Your task to perform on an android device: Go to ESPN.com Image 0: 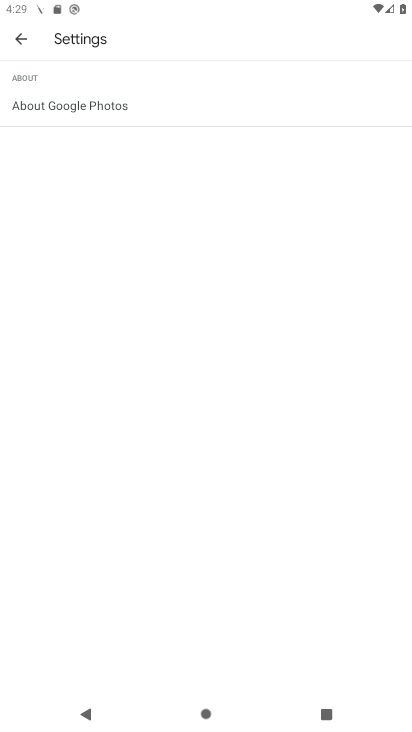
Step 0: press home button
Your task to perform on an android device: Go to ESPN.com Image 1: 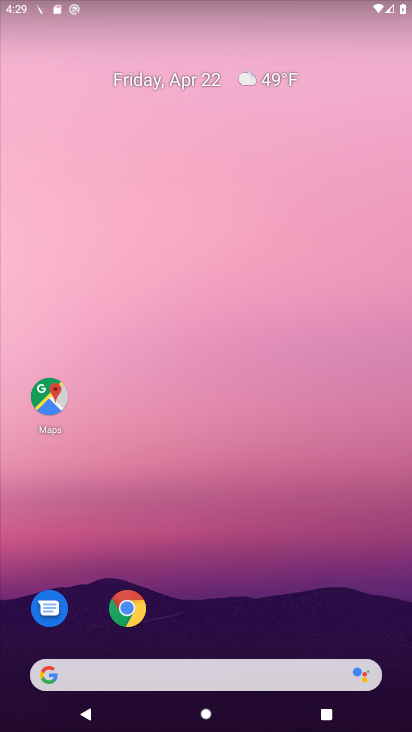
Step 1: drag from (226, 652) to (327, 135)
Your task to perform on an android device: Go to ESPN.com Image 2: 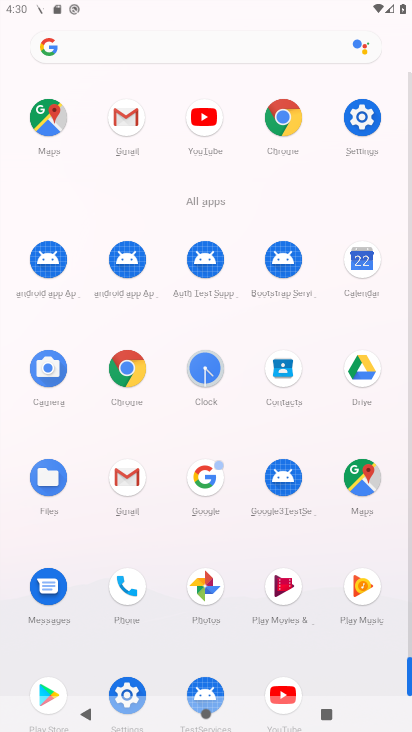
Step 2: click (283, 144)
Your task to perform on an android device: Go to ESPN.com Image 3: 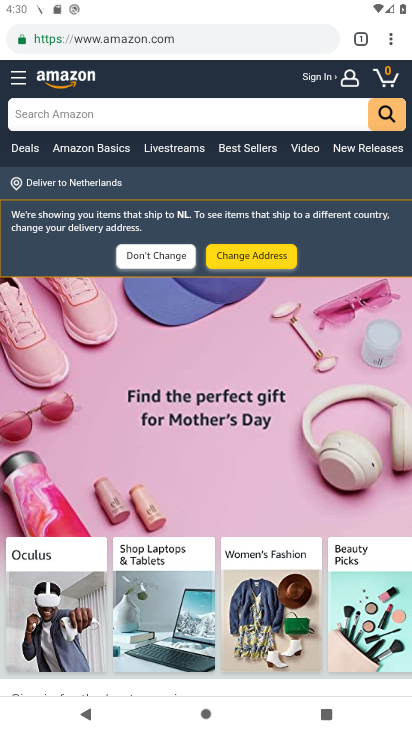
Step 3: click (239, 33)
Your task to perform on an android device: Go to ESPN.com Image 4: 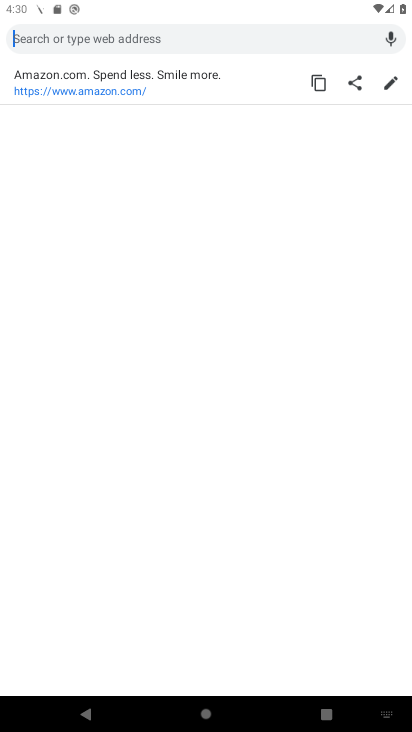
Step 4: type "espn.com"
Your task to perform on an android device: Go to ESPN.com Image 5: 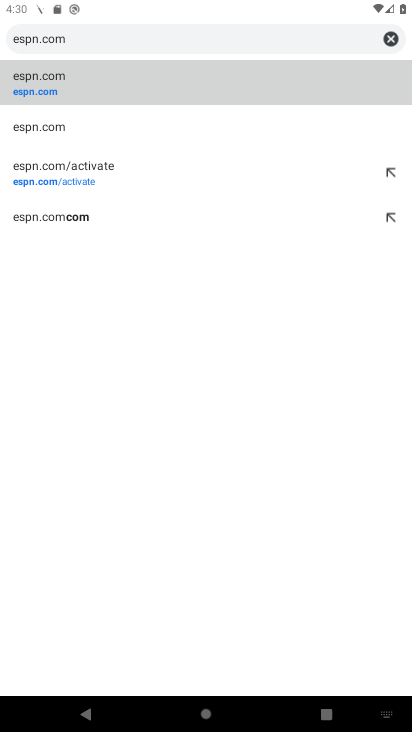
Step 5: click (286, 80)
Your task to perform on an android device: Go to ESPN.com Image 6: 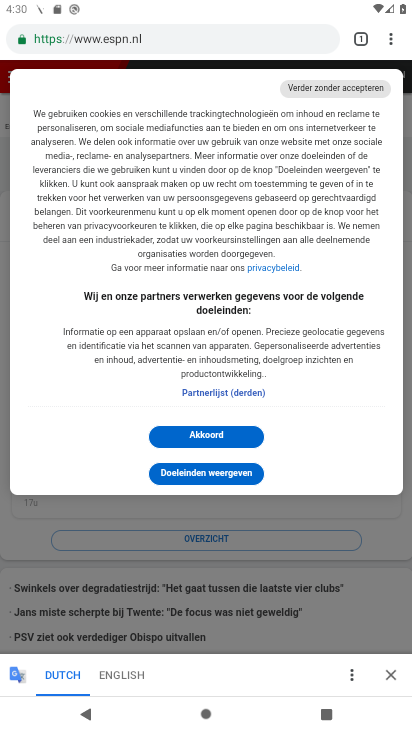
Step 6: task complete